Your task to perform on an android device: Show me recent news Image 0: 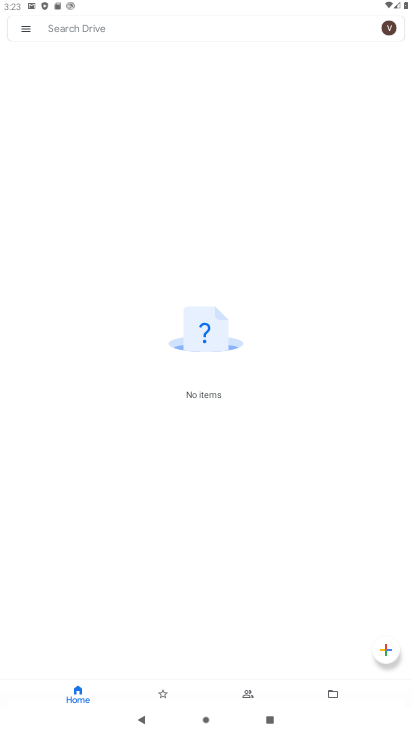
Step 0: press home button
Your task to perform on an android device: Show me recent news Image 1: 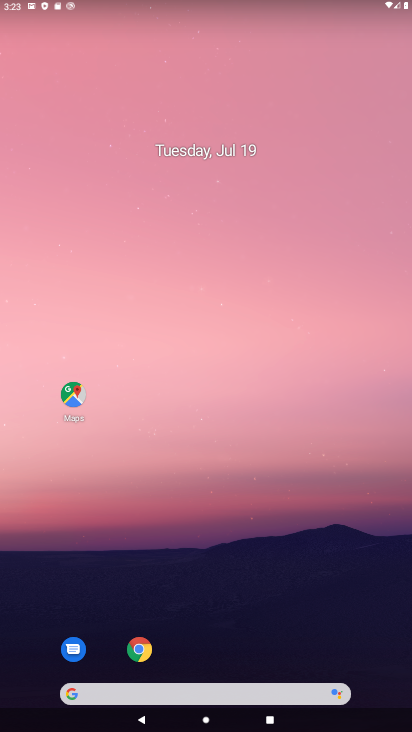
Step 1: click (47, 278)
Your task to perform on an android device: Show me recent news Image 2: 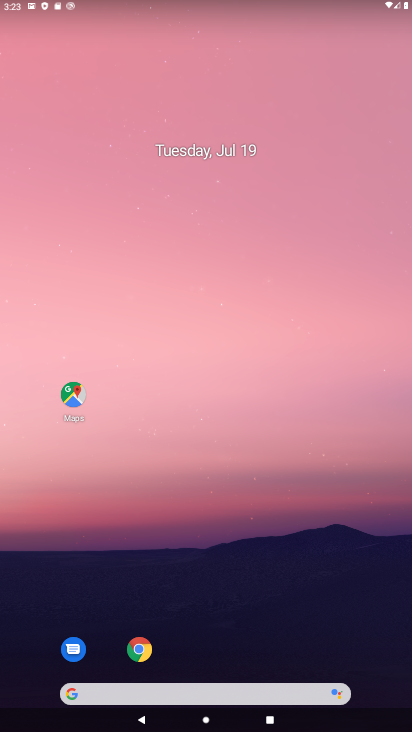
Step 2: task complete